Your task to perform on an android device: open sync settings in chrome Image 0: 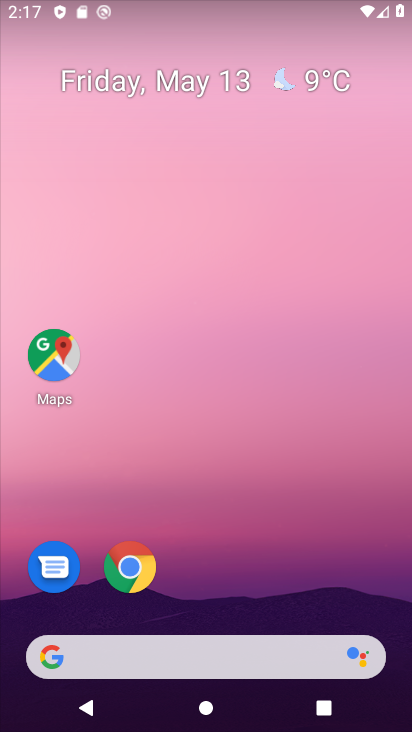
Step 0: click (123, 568)
Your task to perform on an android device: open sync settings in chrome Image 1: 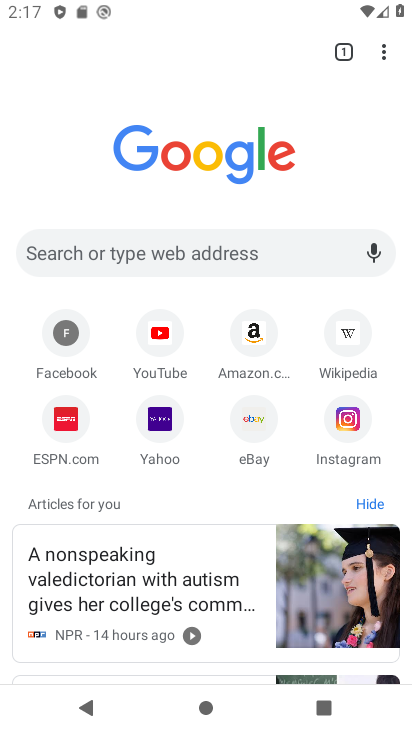
Step 1: click (384, 53)
Your task to perform on an android device: open sync settings in chrome Image 2: 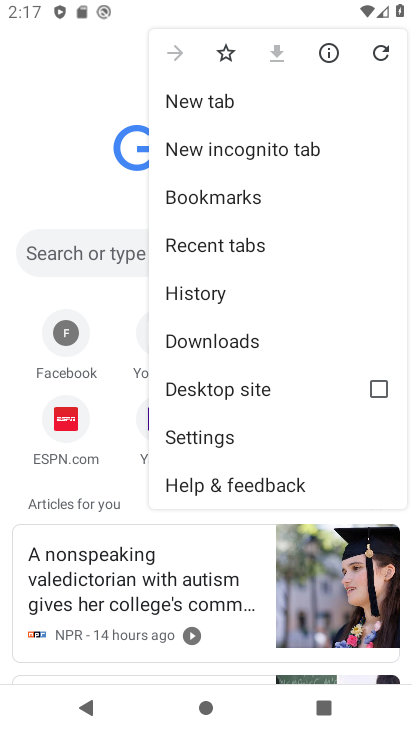
Step 2: click (224, 437)
Your task to perform on an android device: open sync settings in chrome Image 3: 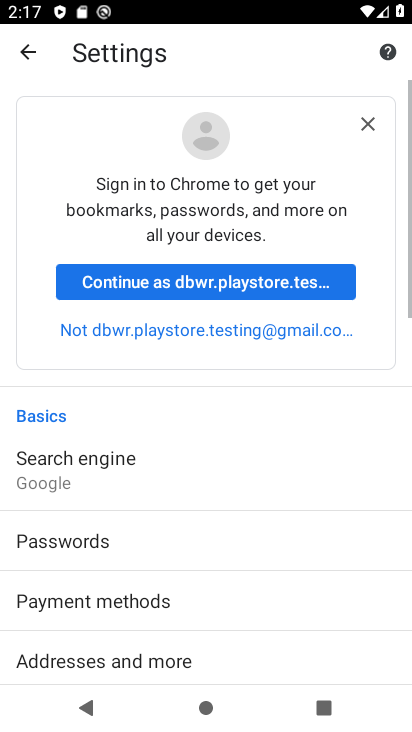
Step 3: click (216, 290)
Your task to perform on an android device: open sync settings in chrome Image 4: 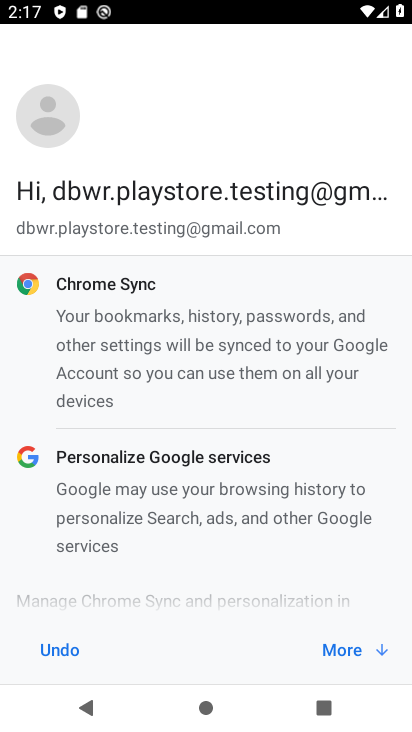
Step 4: click (350, 653)
Your task to perform on an android device: open sync settings in chrome Image 5: 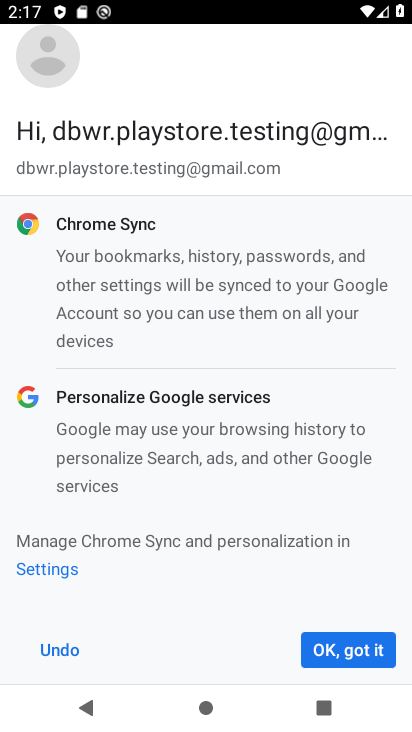
Step 5: click (350, 653)
Your task to perform on an android device: open sync settings in chrome Image 6: 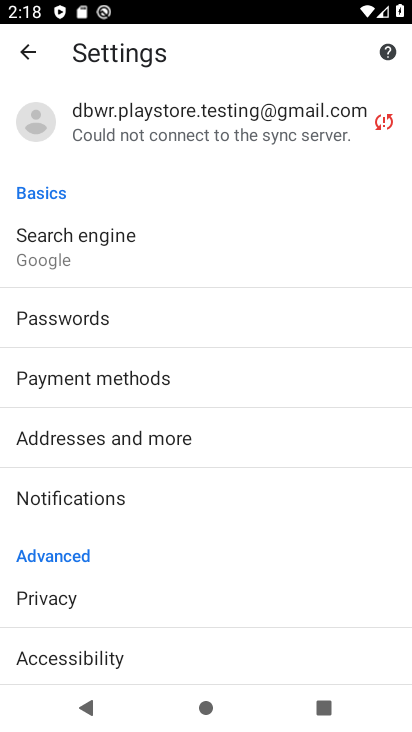
Step 6: click (225, 125)
Your task to perform on an android device: open sync settings in chrome Image 7: 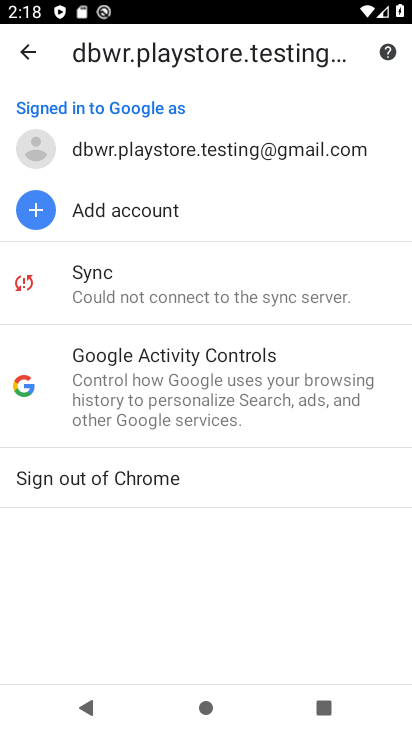
Step 7: click (152, 303)
Your task to perform on an android device: open sync settings in chrome Image 8: 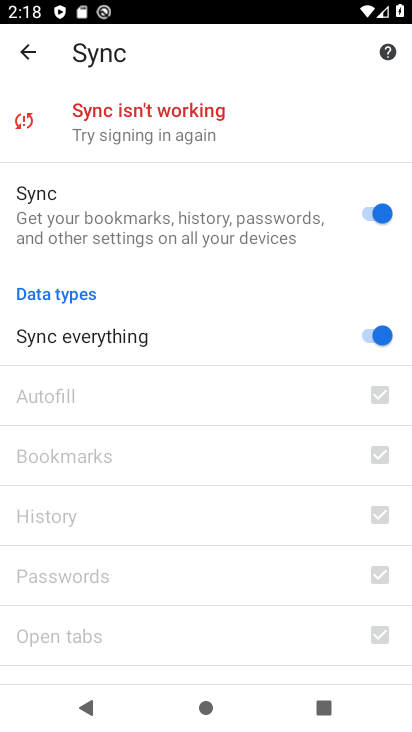
Step 8: task complete